Your task to perform on an android device: Search for Mexican restaurants on Maps Image 0: 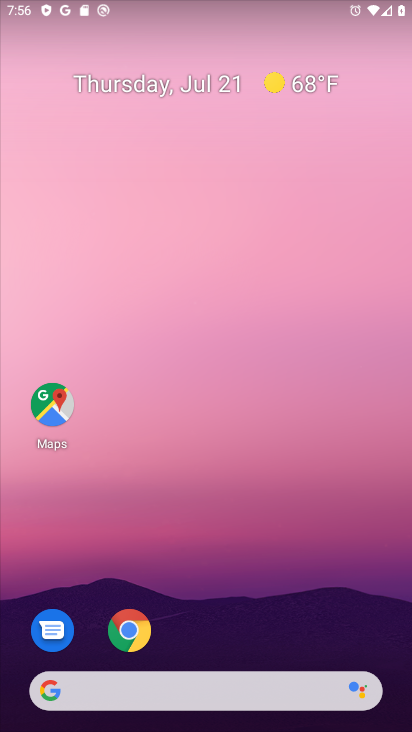
Step 0: drag from (246, 552) to (186, 0)
Your task to perform on an android device: Search for Mexican restaurants on Maps Image 1: 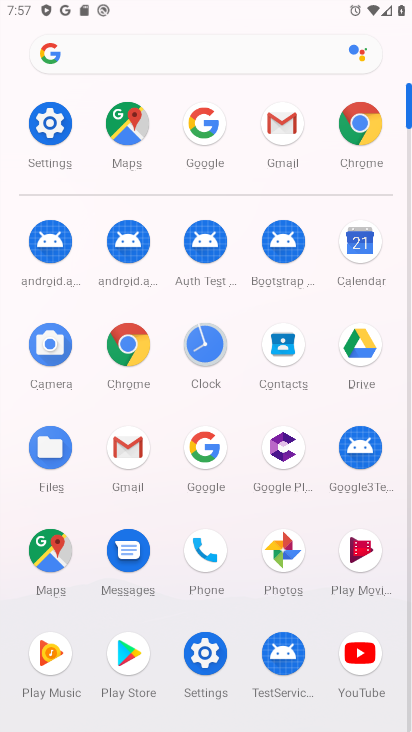
Step 1: click (61, 553)
Your task to perform on an android device: Search for Mexican restaurants on Maps Image 2: 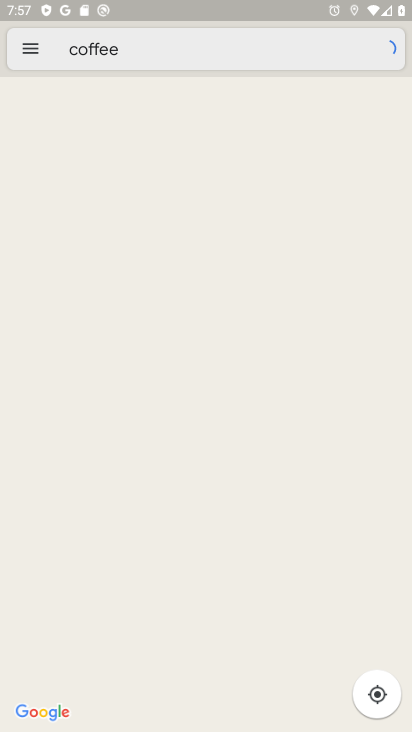
Step 2: click (274, 49)
Your task to perform on an android device: Search for Mexican restaurants on Maps Image 3: 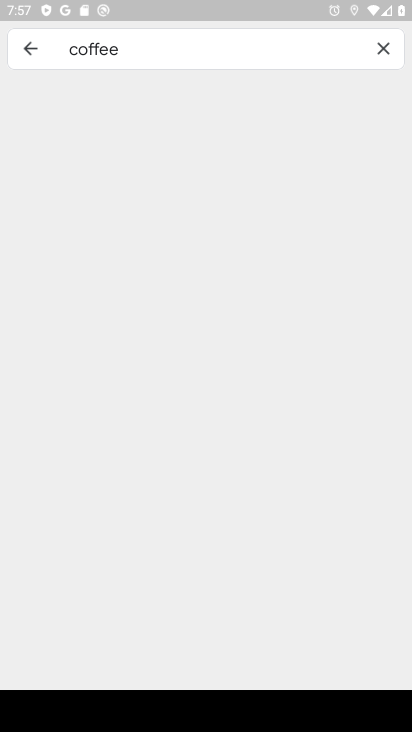
Step 3: click (383, 51)
Your task to perform on an android device: Search for Mexican restaurants on Maps Image 4: 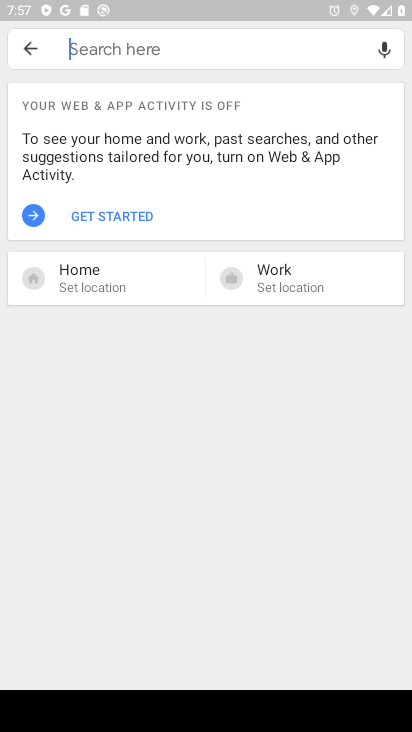
Step 4: type " Mexican restaurants"
Your task to perform on an android device: Search for Mexican restaurants on Maps Image 5: 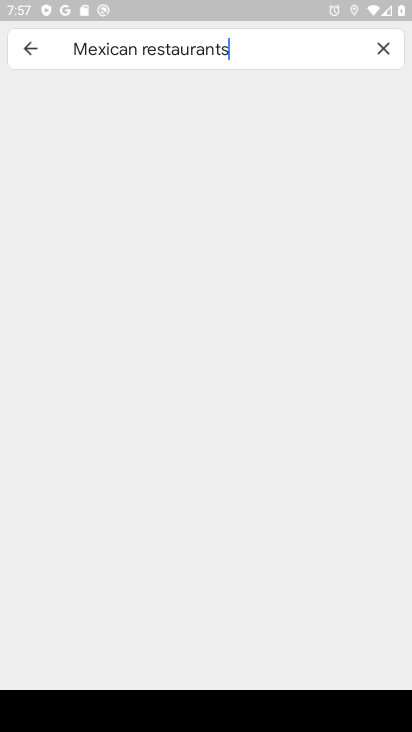
Step 5: press enter
Your task to perform on an android device: Search for Mexican restaurants on Maps Image 6: 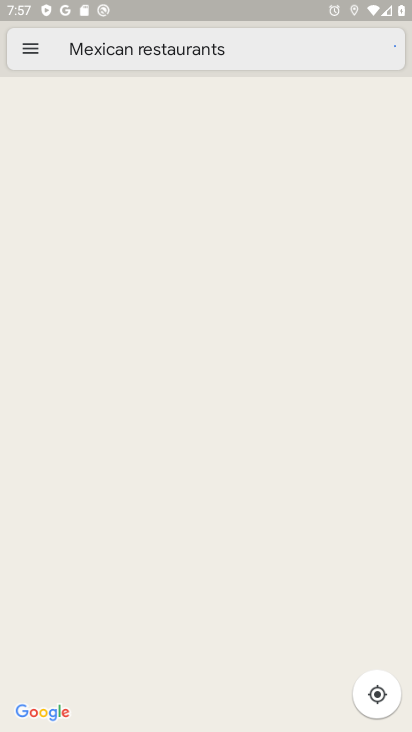
Step 6: press enter
Your task to perform on an android device: Search for Mexican restaurants on Maps Image 7: 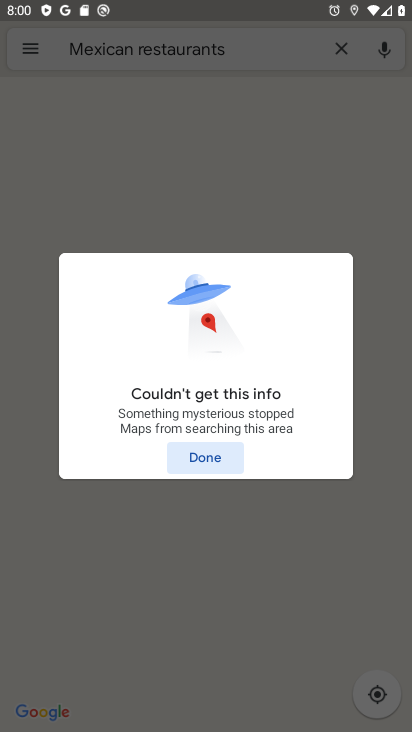
Step 7: task complete